Your task to perform on an android device: change your default location settings in chrome Image 0: 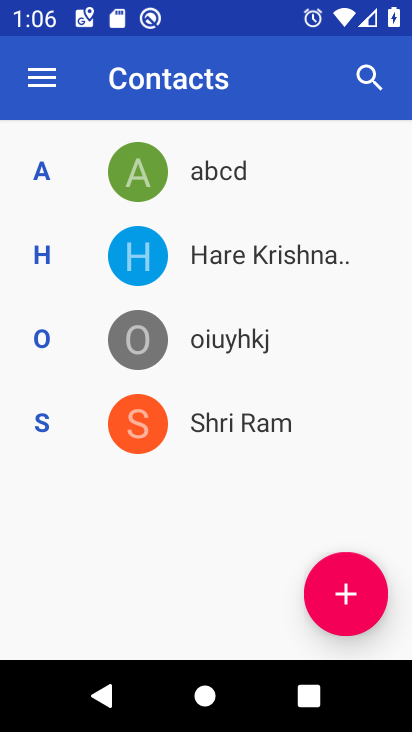
Step 0: press home button
Your task to perform on an android device: change your default location settings in chrome Image 1: 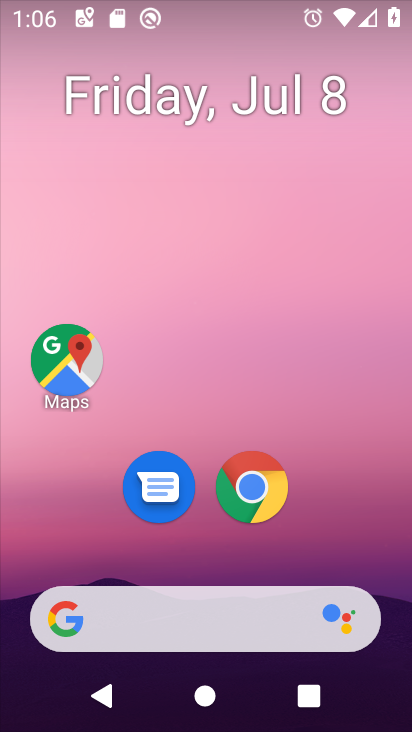
Step 1: drag from (379, 554) to (364, 253)
Your task to perform on an android device: change your default location settings in chrome Image 2: 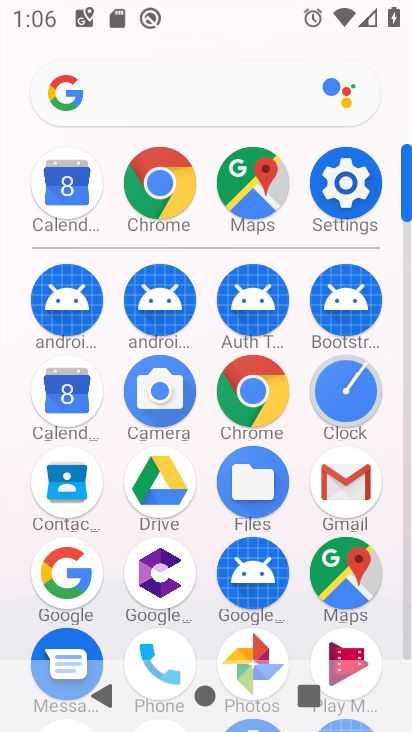
Step 2: click (264, 398)
Your task to perform on an android device: change your default location settings in chrome Image 3: 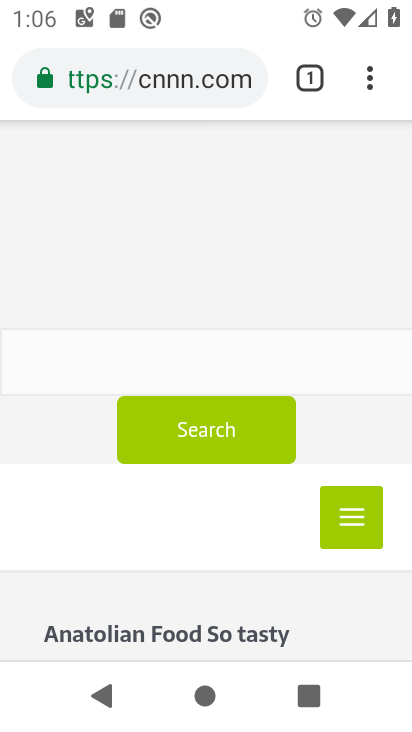
Step 3: click (370, 80)
Your task to perform on an android device: change your default location settings in chrome Image 4: 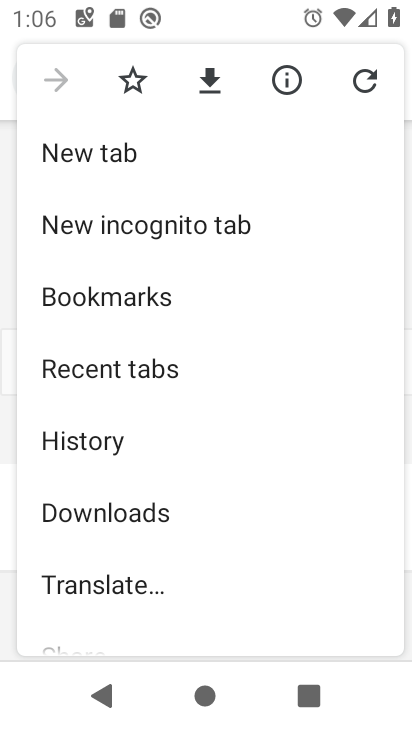
Step 4: drag from (335, 389) to (347, 292)
Your task to perform on an android device: change your default location settings in chrome Image 5: 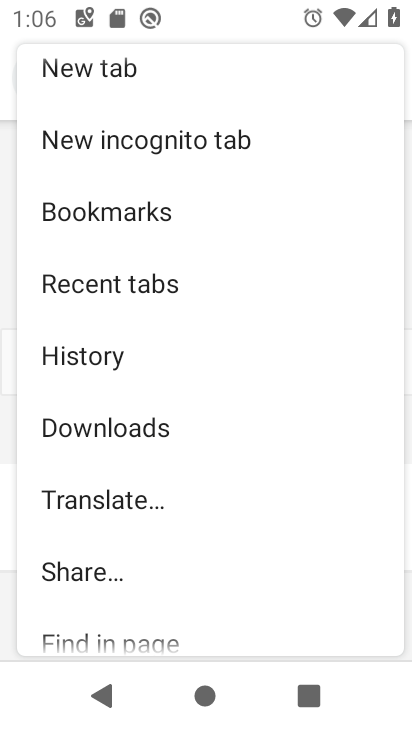
Step 5: drag from (342, 451) to (333, 356)
Your task to perform on an android device: change your default location settings in chrome Image 6: 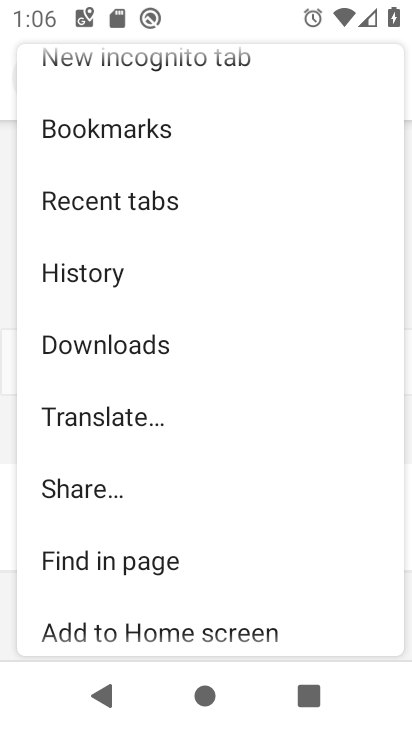
Step 6: drag from (302, 455) to (286, 376)
Your task to perform on an android device: change your default location settings in chrome Image 7: 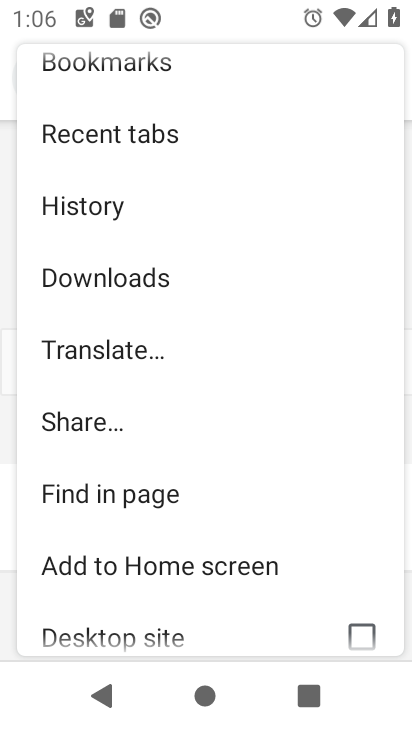
Step 7: drag from (331, 515) to (315, 379)
Your task to perform on an android device: change your default location settings in chrome Image 8: 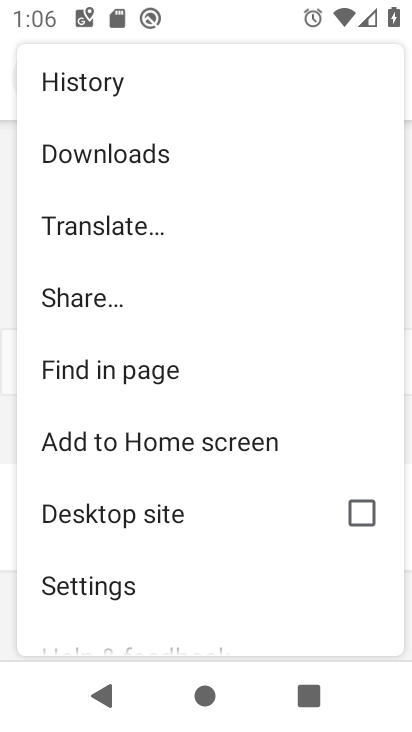
Step 8: drag from (292, 543) to (291, 417)
Your task to perform on an android device: change your default location settings in chrome Image 9: 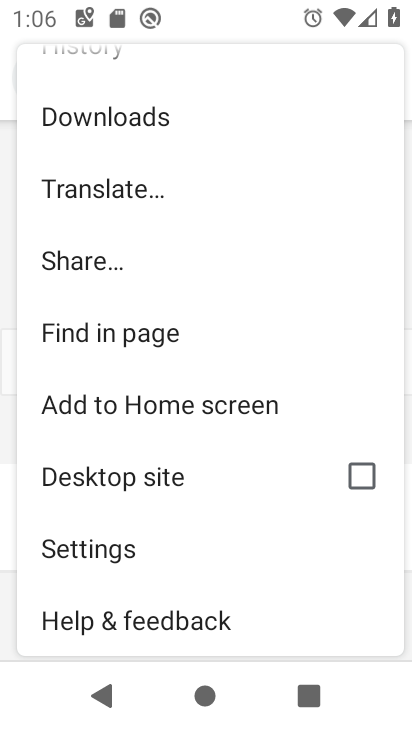
Step 9: click (210, 559)
Your task to perform on an android device: change your default location settings in chrome Image 10: 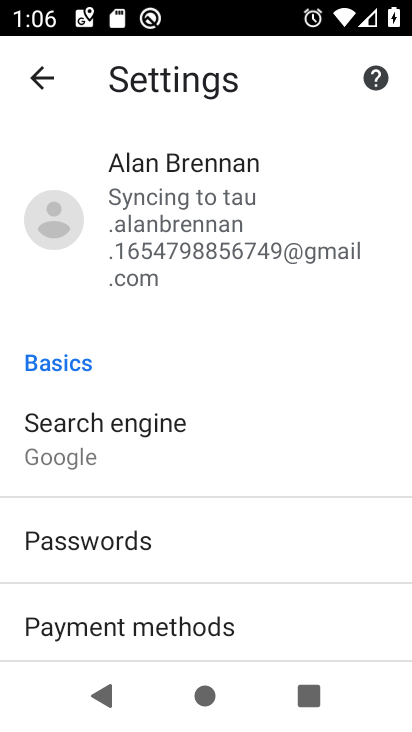
Step 10: drag from (290, 522) to (287, 425)
Your task to perform on an android device: change your default location settings in chrome Image 11: 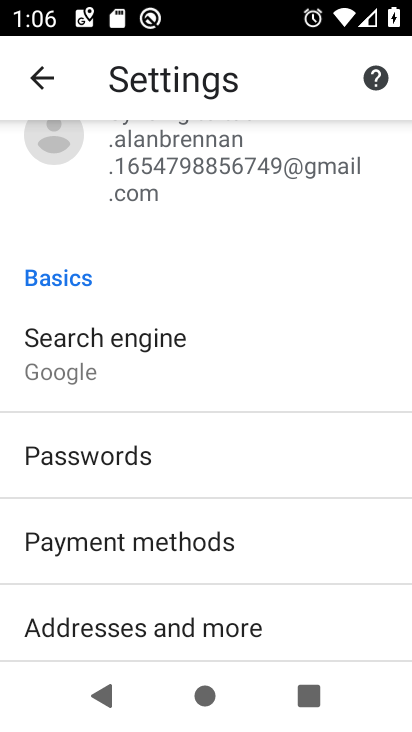
Step 11: drag from (302, 522) to (299, 435)
Your task to perform on an android device: change your default location settings in chrome Image 12: 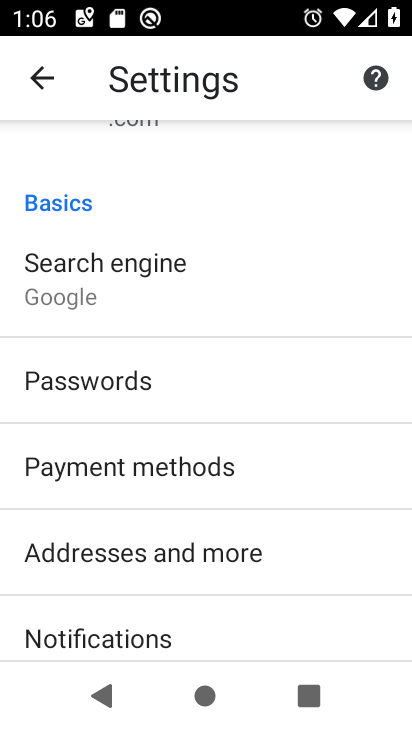
Step 12: drag from (306, 508) to (313, 396)
Your task to perform on an android device: change your default location settings in chrome Image 13: 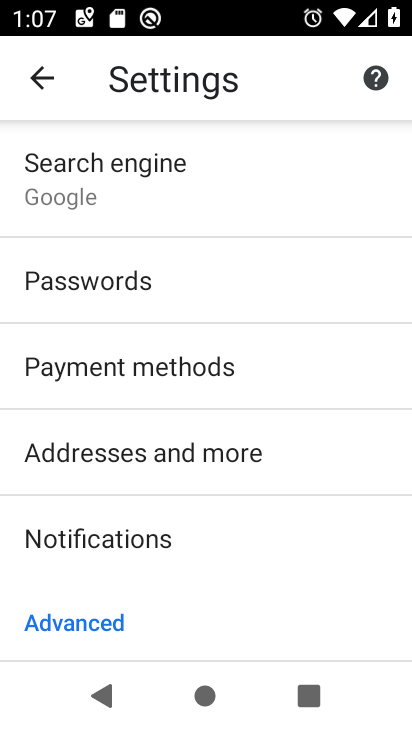
Step 13: drag from (300, 471) to (306, 343)
Your task to perform on an android device: change your default location settings in chrome Image 14: 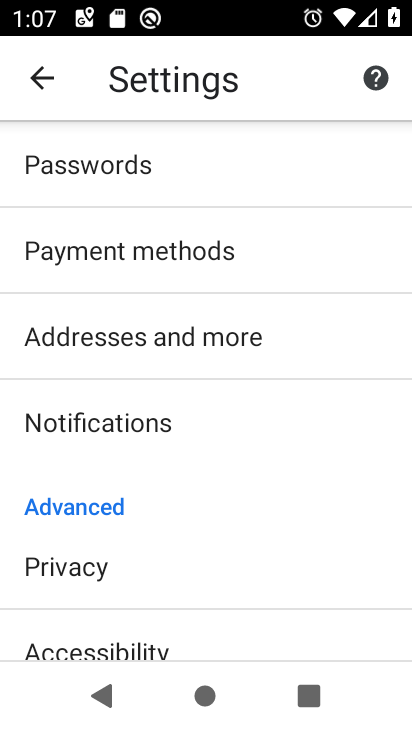
Step 14: drag from (291, 502) to (289, 380)
Your task to perform on an android device: change your default location settings in chrome Image 15: 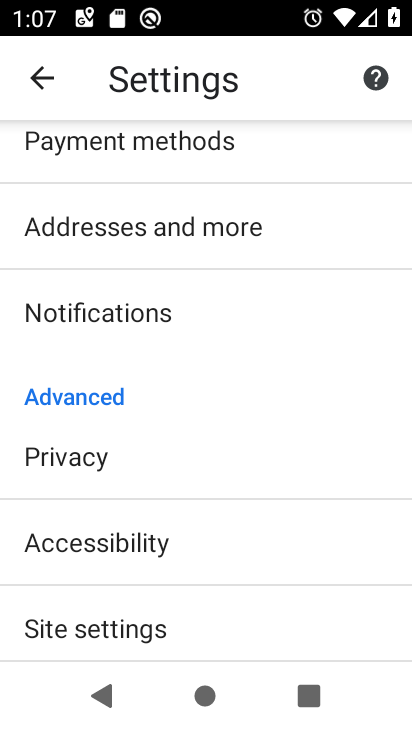
Step 15: drag from (283, 557) to (303, 405)
Your task to perform on an android device: change your default location settings in chrome Image 16: 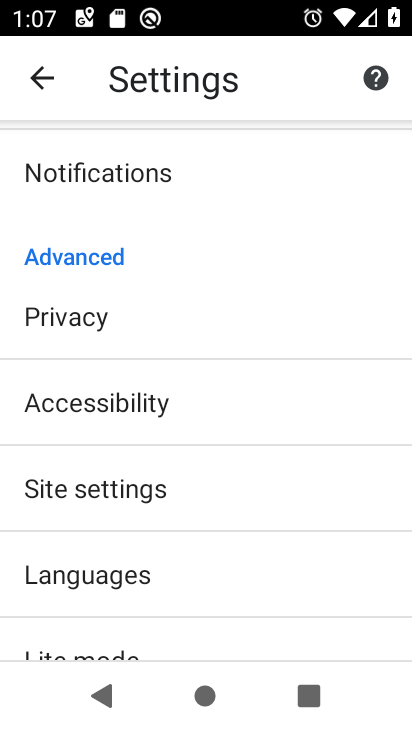
Step 16: click (291, 496)
Your task to perform on an android device: change your default location settings in chrome Image 17: 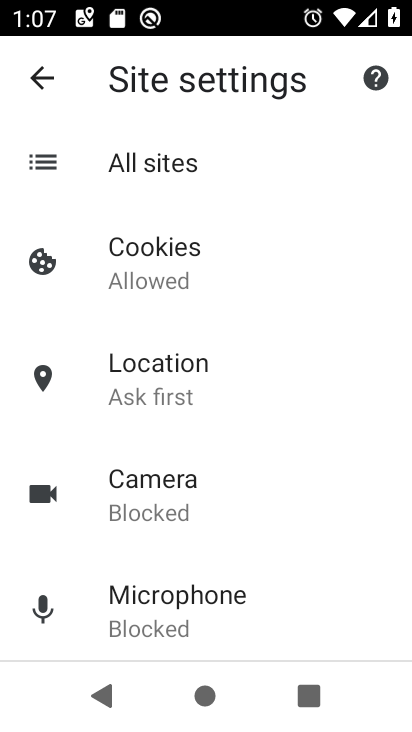
Step 17: click (219, 380)
Your task to perform on an android device: change your default location settings in chrome Image 18: 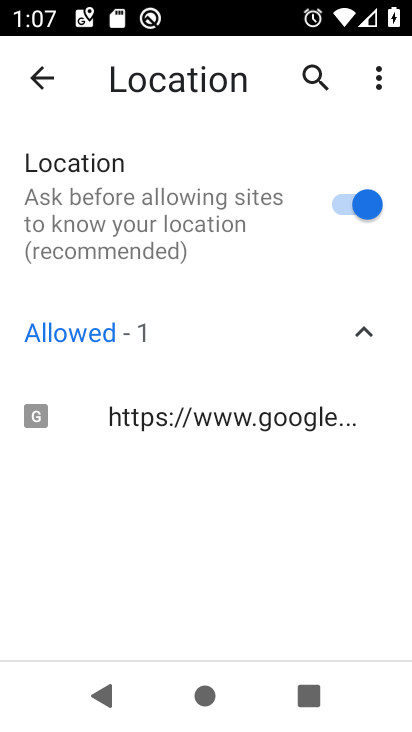
Step 18: click (360, 201)
Your task to perform on an android device: change your default location settings in chrome Image 19: 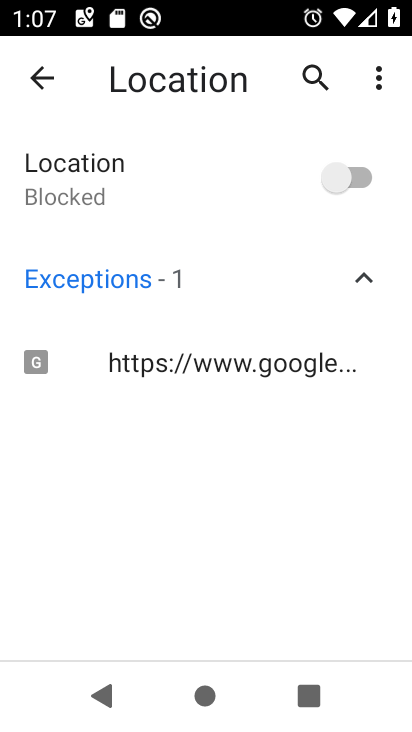
Step 19: task complete